Your task to perform on an android device: open app "Lyft - Rideshare, Bikes, Scooters & Transit" Image 0: 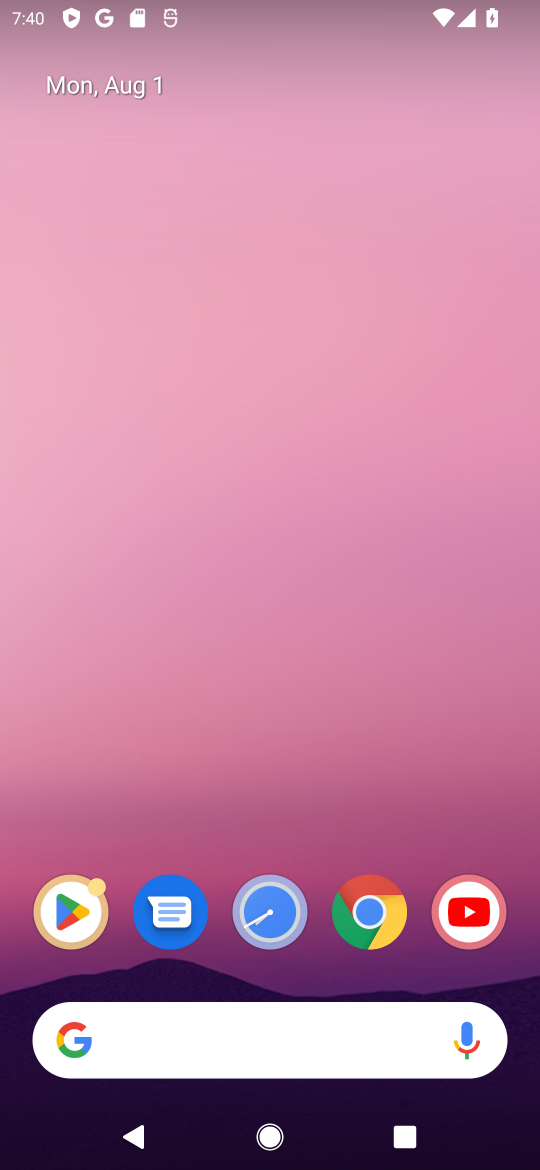
Step 0: drag from (277, 1002) to (252, 25)
Your task to perform on an android device: open app "Lyft - Rideshare, Bikes, Scooters & Transit" Image 1: 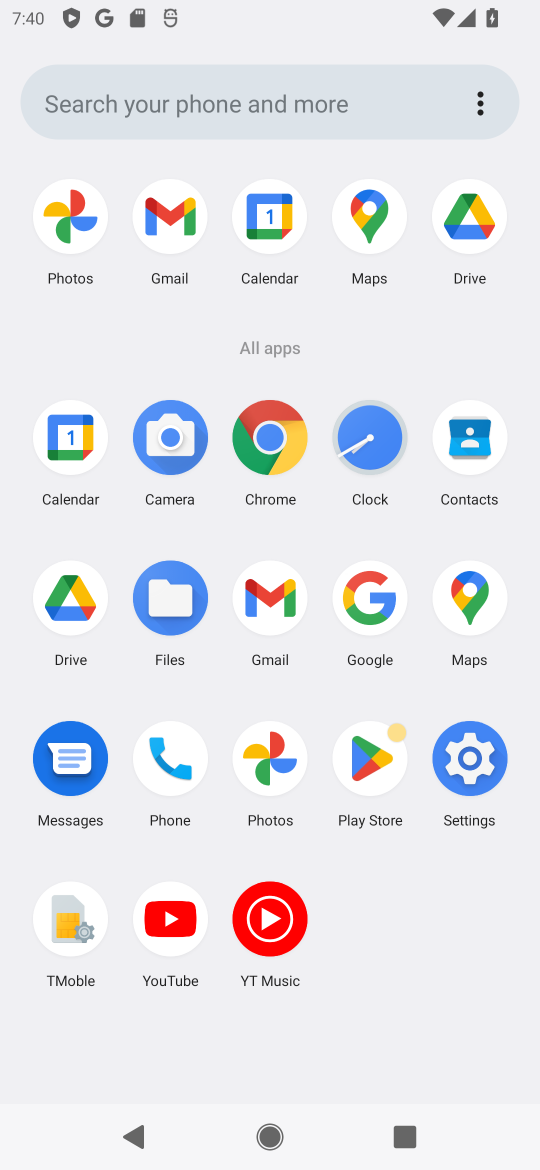
Step 1: click (367, 759)
Your task to perform on an android device: open app "Lyft - Rideshare, Bikes, Scooters & Transit" Image 2: 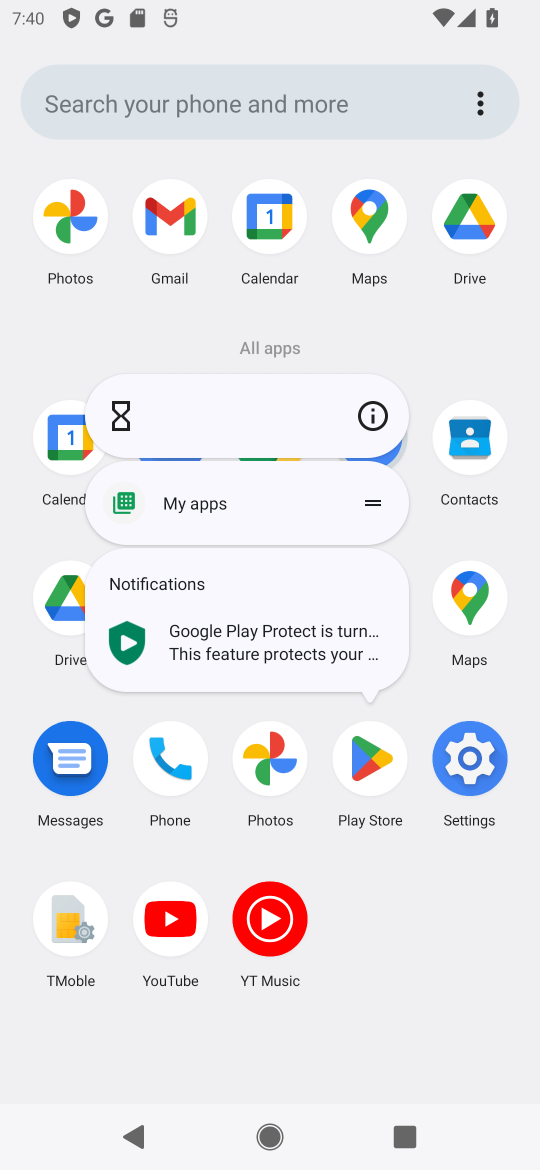
Step 2: click (351, 764)
Your task to perform on an android device: open app "Lyft - Rideshare, Bikes, Scooters & Transit" Image 3: 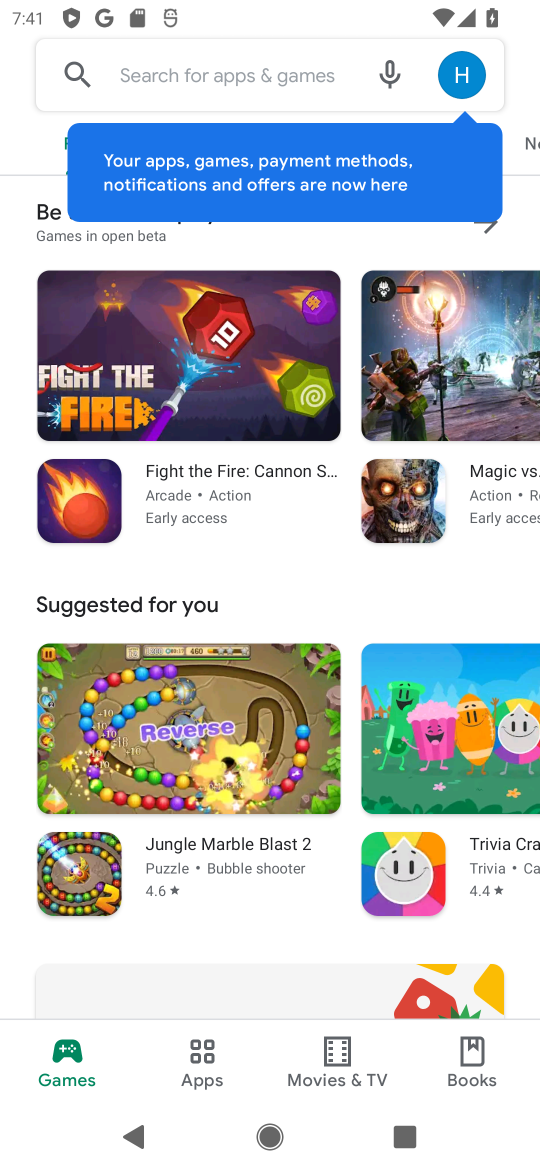
Step 3: click (224, 65)
Your task to perform on an android device: open app "Lyft - Rideshare, Bikes, Scooters & Transit" Image 4: 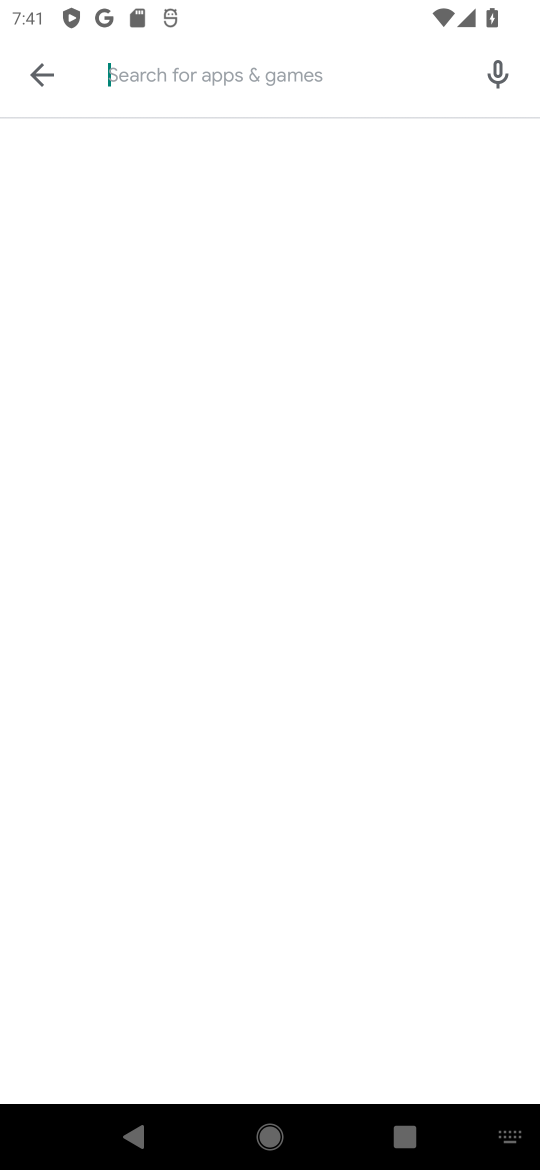
Step 4: type "Lyft - Rideshare, Bikes, Scooters & Transit"
Your task to perform on an android device: open app "Lyft - Rideshare, Bikes, Scooters & Transit" Image 5: 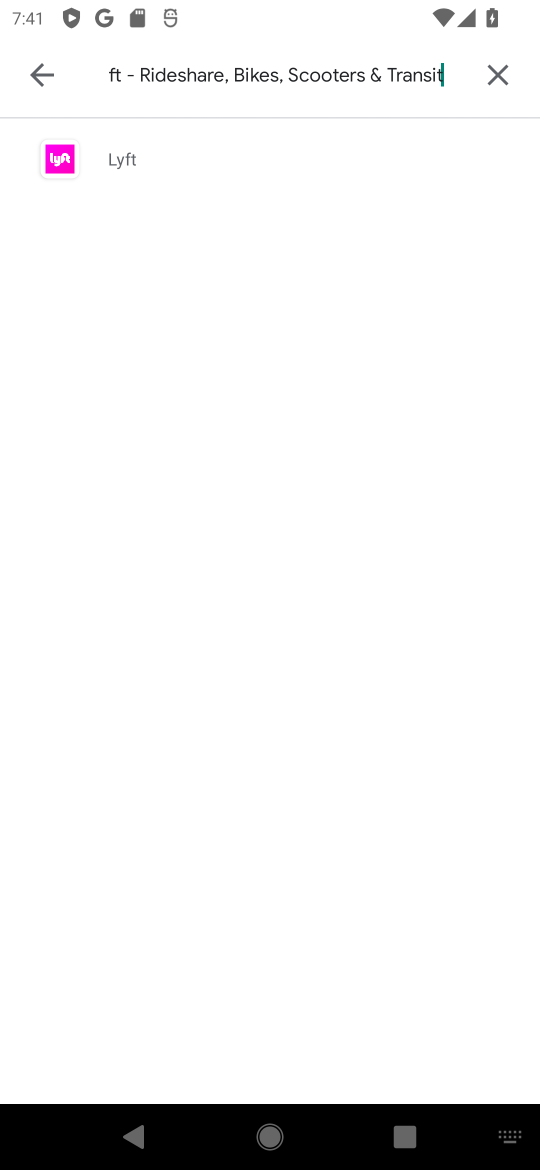
Step 5: click (129, 160)
Your task to perform on an android device: open app "Lyft - Rideshare, Bikes, Scooters & Transit" Image 6: 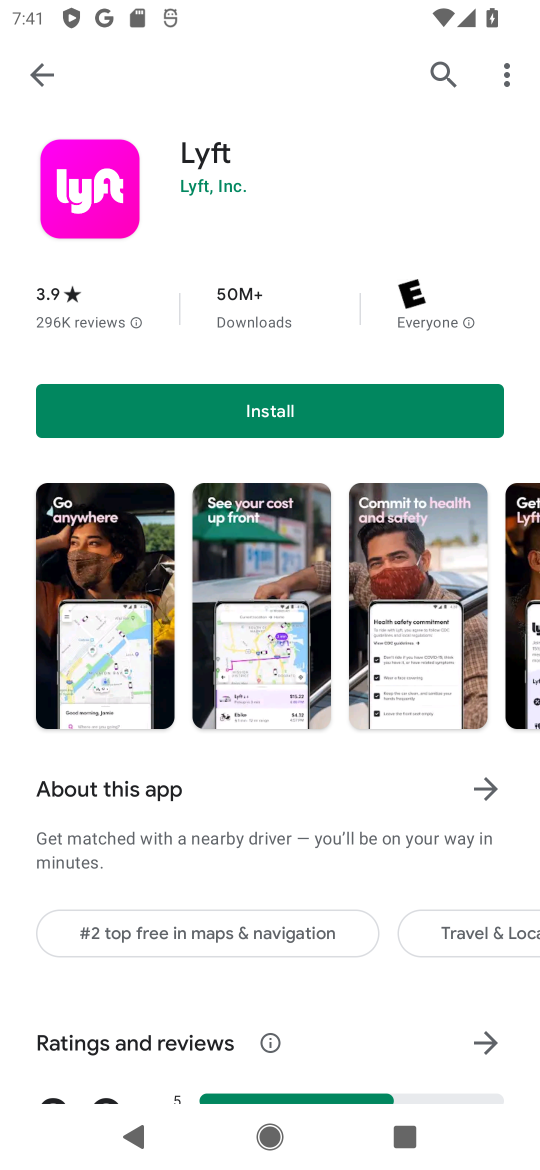
Step 6: click (232, 404)
Your task to perform on an android device: open app "Lyft - Rideshare, Bikes, Scooters & Transit" Image 7: 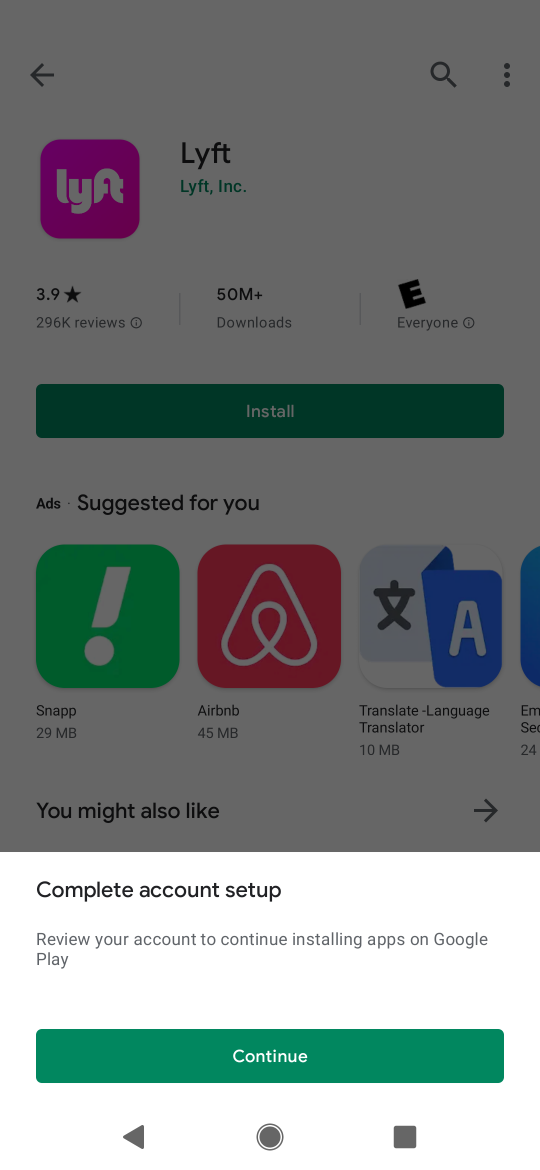
Step 7: click (270, 1063)
Your task to perform on an android device: open app "Lyft - Rideshare, Bikes, Scooters & Transit" Image 8: 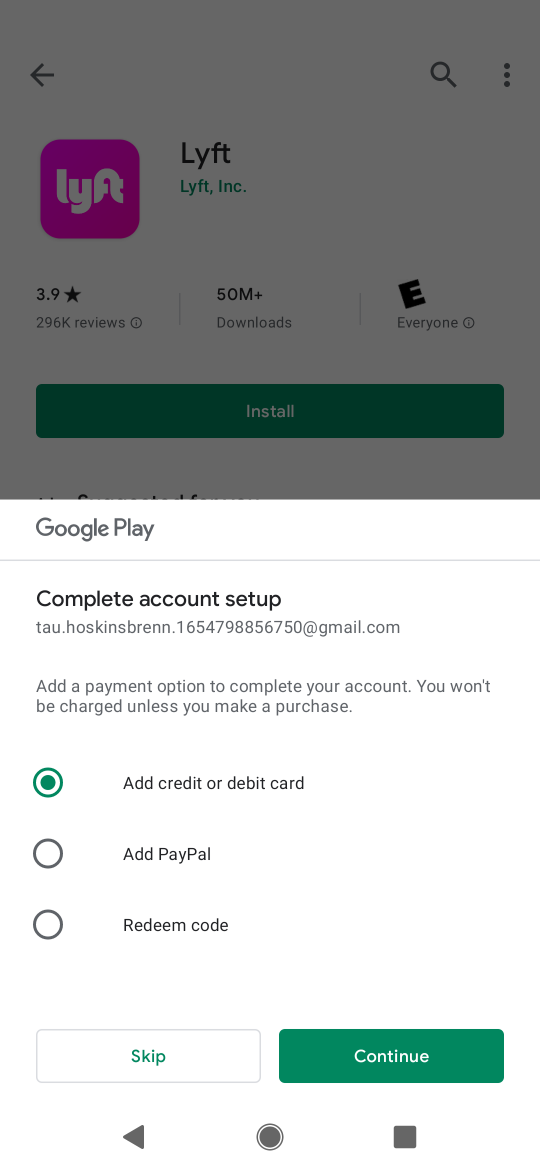
Step 8: click (122, 1052)
Your task to perform on an android device: open app "Lyft - Rideshare, Bikes, Scooters & Transit" Image 9: 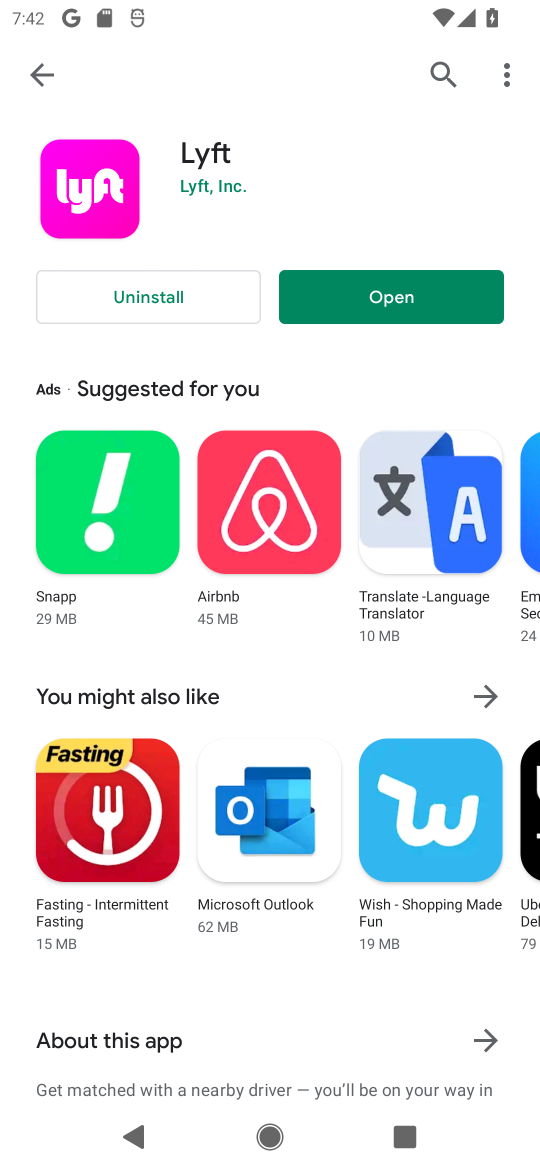
Step 9: click (330, 308)
Your task to perform on an android device: open app "Lyft - Rideshare, Bikes, Scooters & Transit" Image 10: 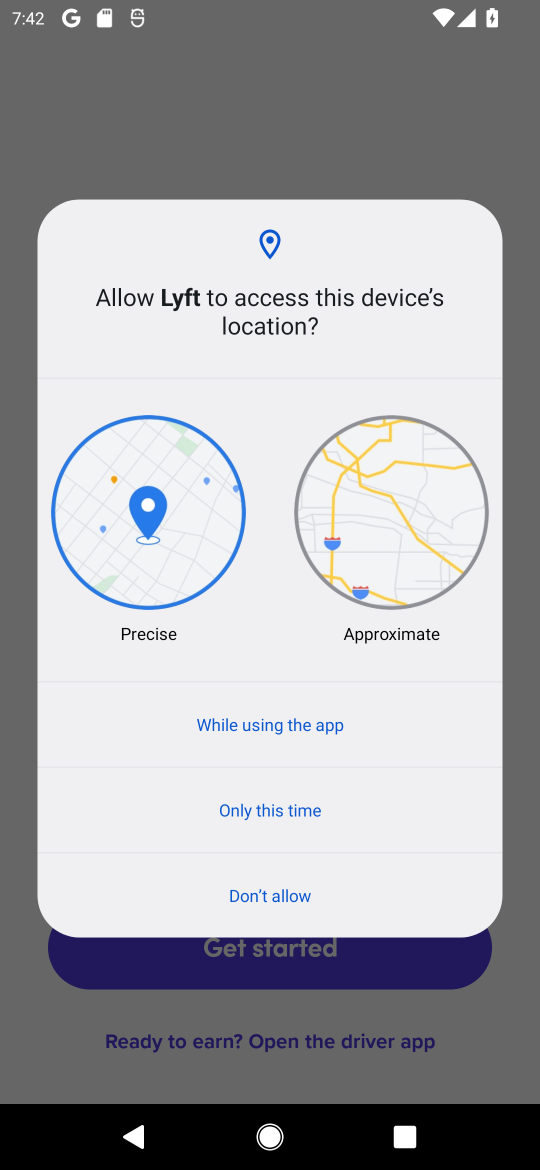
Step 10: task complete